Your task to perform on an android device: When is my next appointment? Image 0: 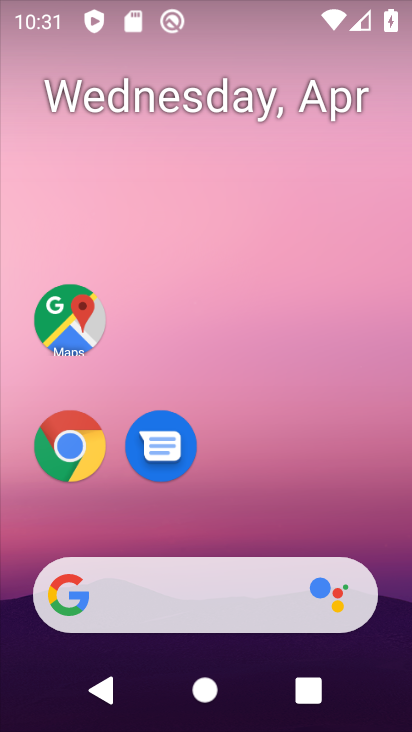
Step 0: drag from (215, 538) to (161, 22)
Your task to perform on an android device: When is my next appointment? Image 1: 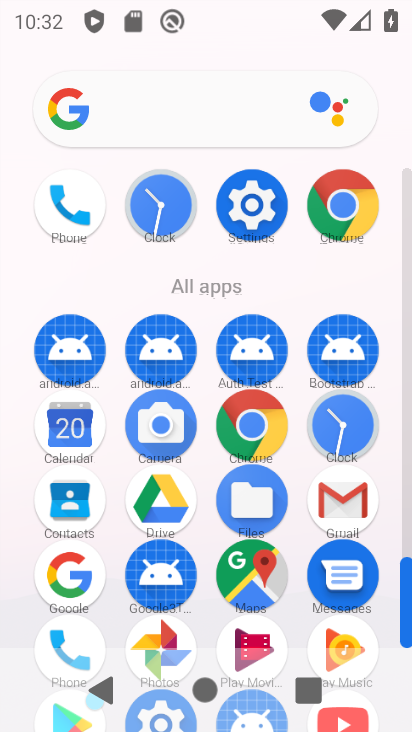
Step 1: click (70, 626)
Your task to perform on an android device: When is my next appointment? Image 2: 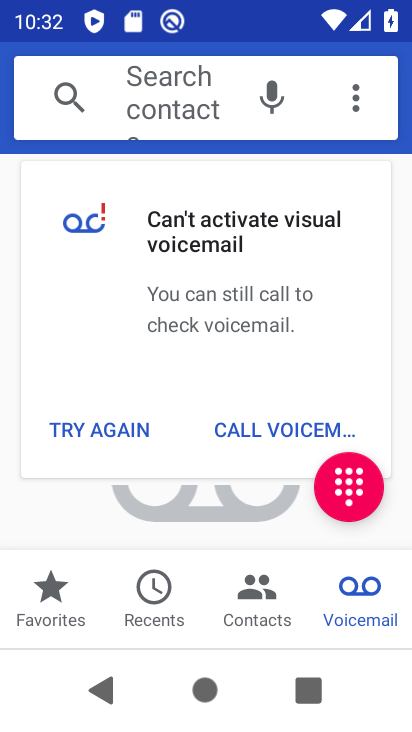
Step 2: task complete